Your task to perform on an android device: see creations saved in the google photos Image 0: 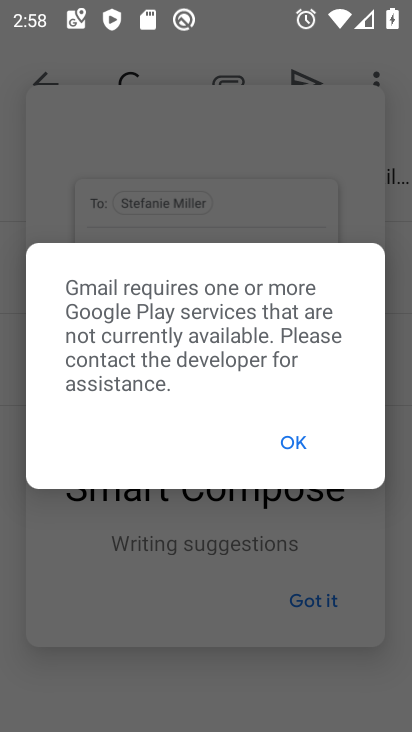
Step 0: press home button
Your task to perform on an android device: see creations saved in the google photos Image 1: 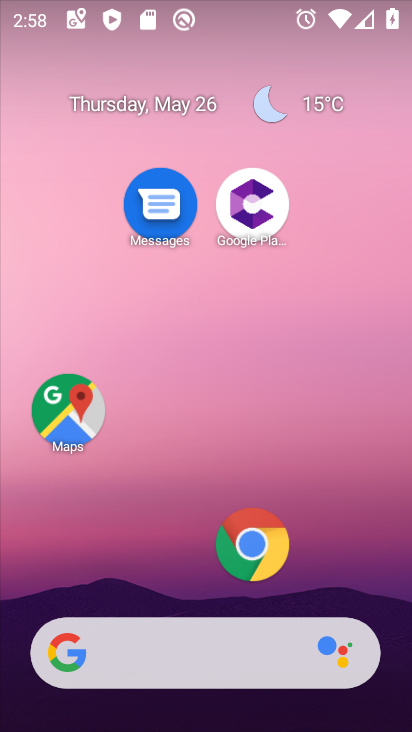
Step 1: drag from (178, 587) to (152, 90)
Your task to perform on an android device: see creations saved in the google photos Image 2: 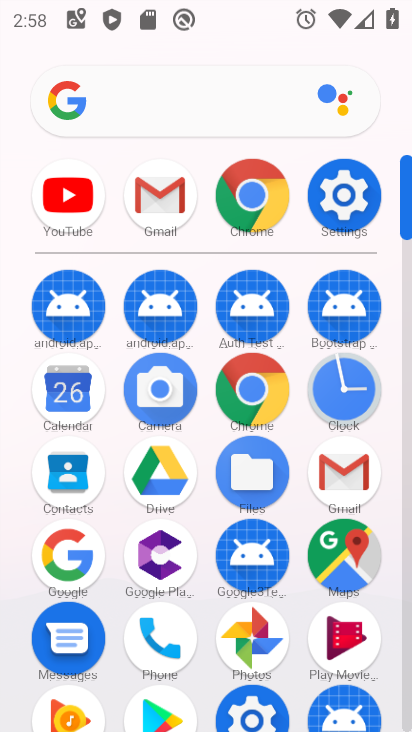
Step 2: click (247, 632)
Your task to perform on an android device: see creations saved in the google photos Image 3: 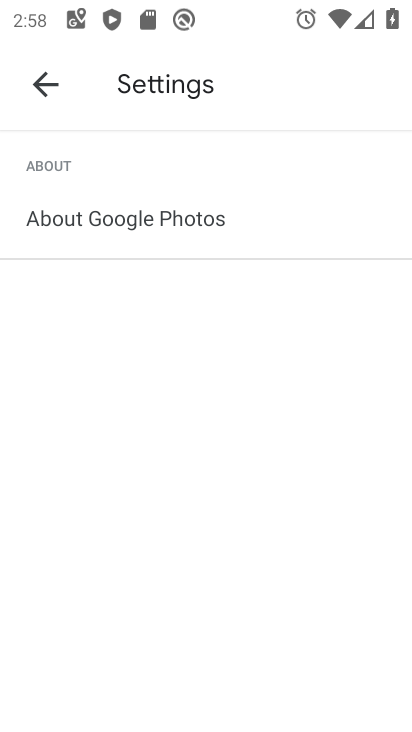
Step 3: click (39, 95)
Your task to perform on an android device: see creations saved in the google photos Image 4: 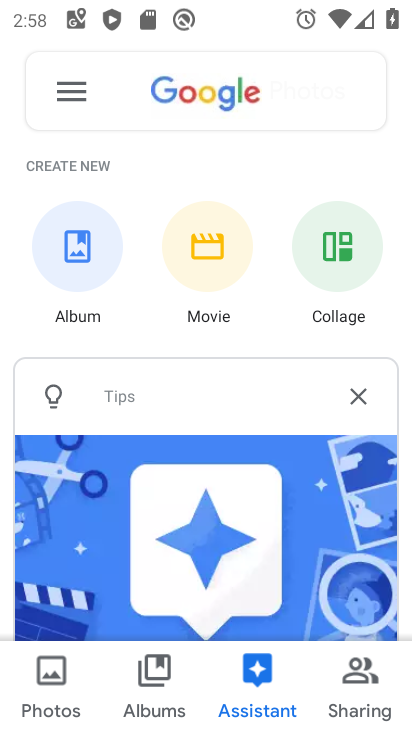
Step 4: task complete